Your task to perform on an android device: Open battery settings Image 0: 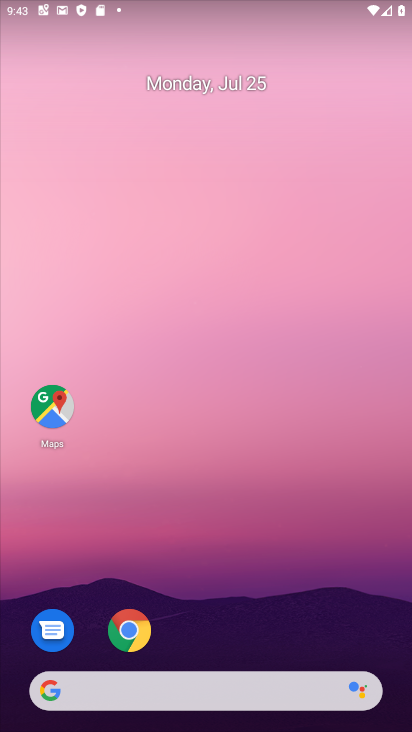
Step 0: drag from (241, 568) to (187, 87)
Your task to perform on an android device: Open battery settings Image 1: 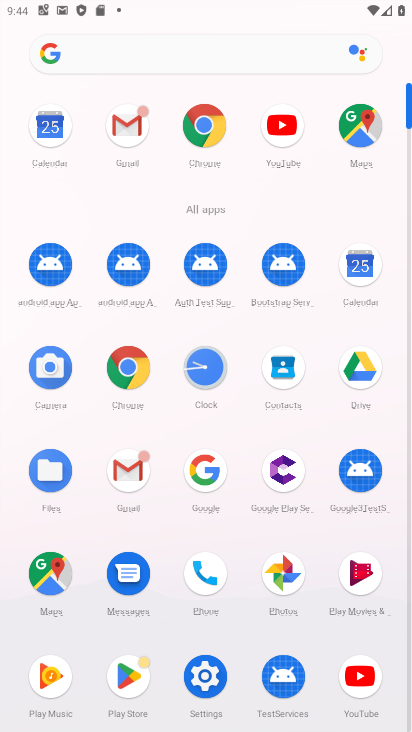
Step 1: click (201, 678)
Your task to perform on an android device: Open battery settings Image 2: 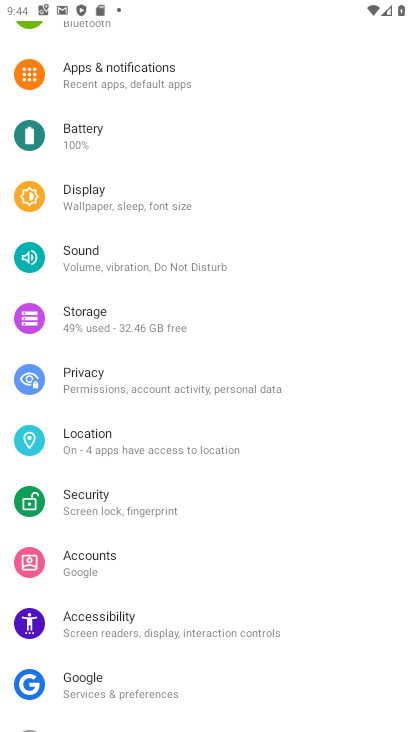
Step 2: click (75, 131)
Your task to perform on an android device: Open battery settings Image 3: 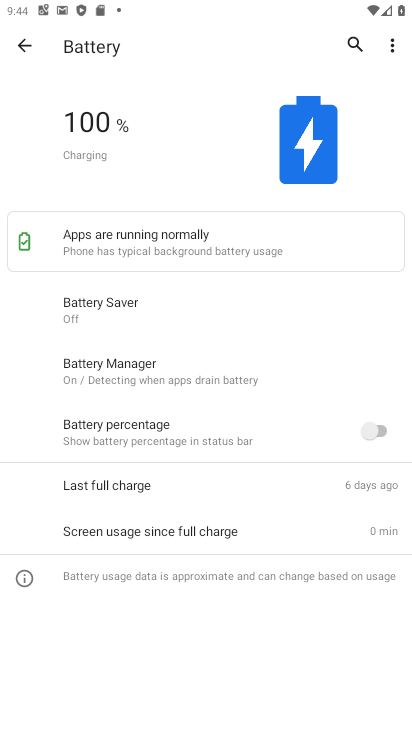
Step 3: task complete